Your task to perform on an android device: turn on data saver in the chrome app Image 0: 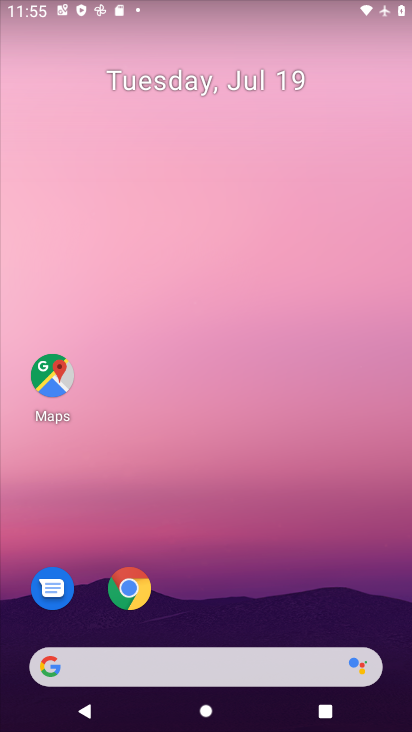
Step 0: drag from (387, 653) to (155, 42)
Your task to perform on an android device: turn on data saver in the chrome app Image 1: 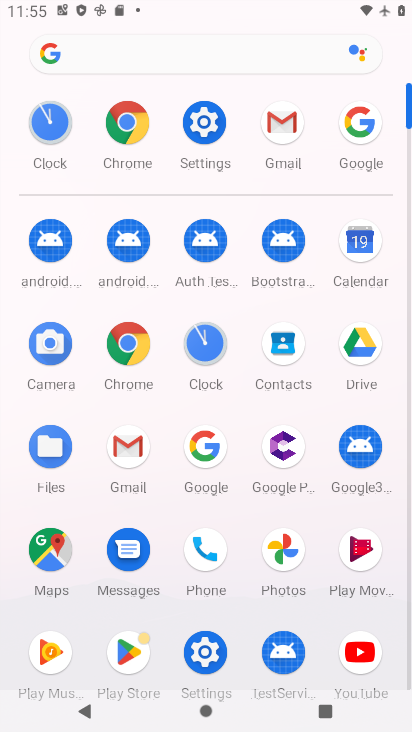
Step 1: click (137, 346)
Your task to perform on an android device: turn on data saver in the chrome app Image 2: 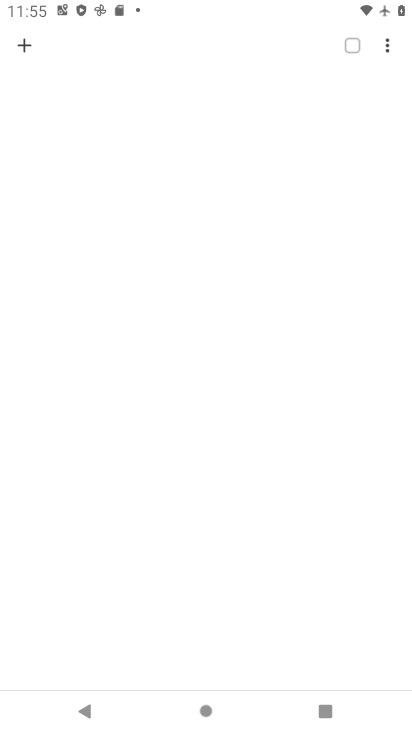
Step 2: click (381, 38)
Your task to perform on an android device: turn on data saver in the chrome app Image 3: 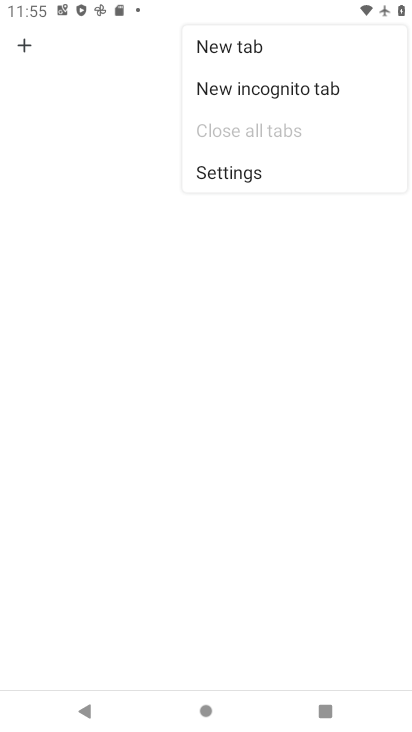
Step 3: click (254, 169)
Your task to perform on an android device: turn on data saver in the chrome app Image 4: 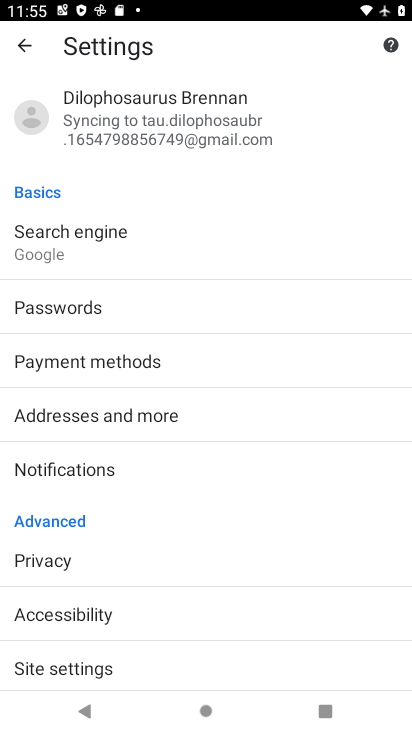
Step 4: drag from (111, 667) to (125, 164)
Your task to perform on an android device: turn on data saver in the chrome app Image 5: 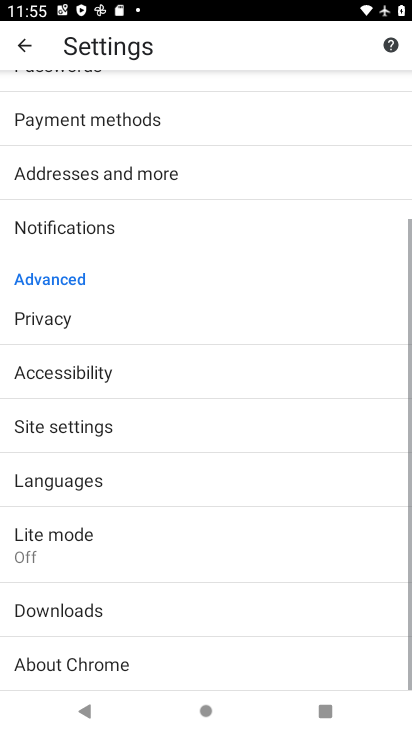
Step 5: click (46, 559)
Your task to perform on an android device: turn on data saver in the chrome app Image 6: 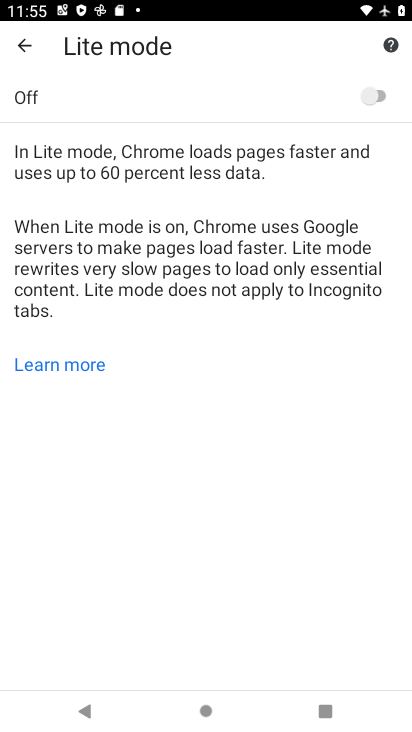
Step 6: click (357, 99)
Your task to perform on an android device: turn on data saver in the chrome app Image 7: 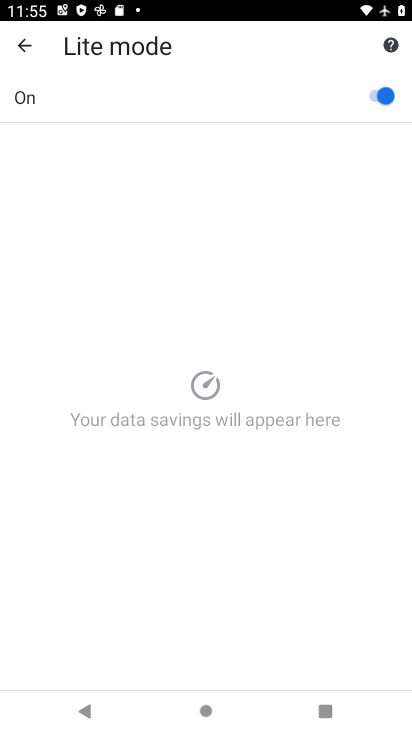
Step 7: task complete